Your task to perform on an android device: empty trash in google photos Image 0: 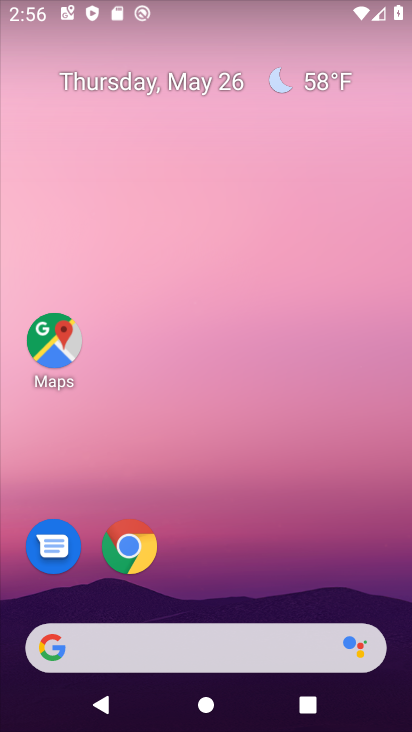
Step 0: drag from (209, 592) to (262, 118)
Your task to perform on an android device: empty trash in google photos Image 1: 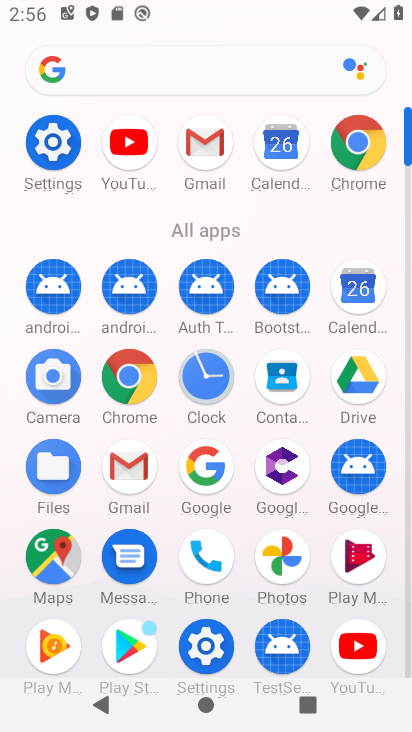
Step 1: click (284, 549)
Your task to perform on an android device: empty trash in google photos Image 2: 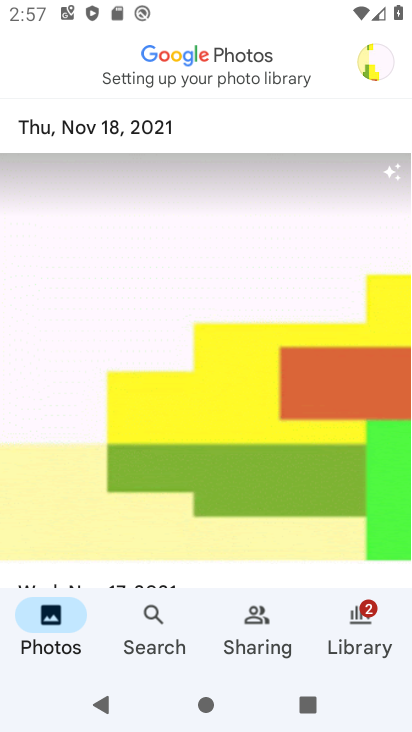
Step 2: click (358, 626)
Your task to perform on an android device: empty trash in google photos Image 3: 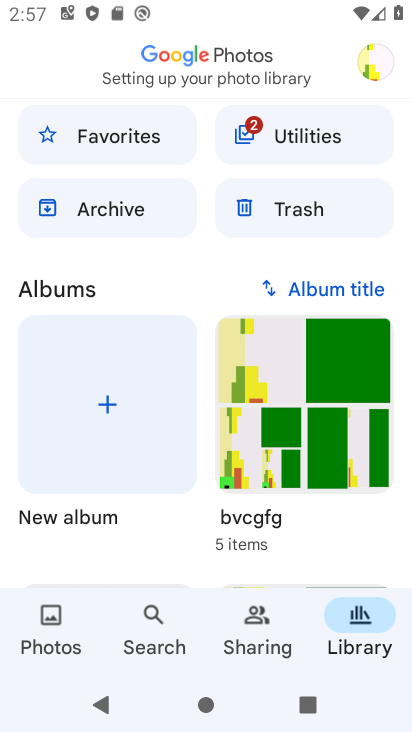
Step 3: click (256, 201)
Your task to perform on an android device: empty trash in google photos Image 4: 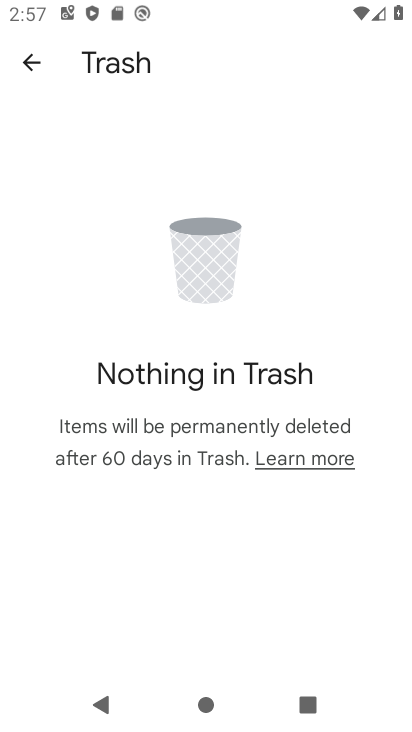
Step 4: task complete